Your task to perform on an android device: open chrome privacy settings Image 0: 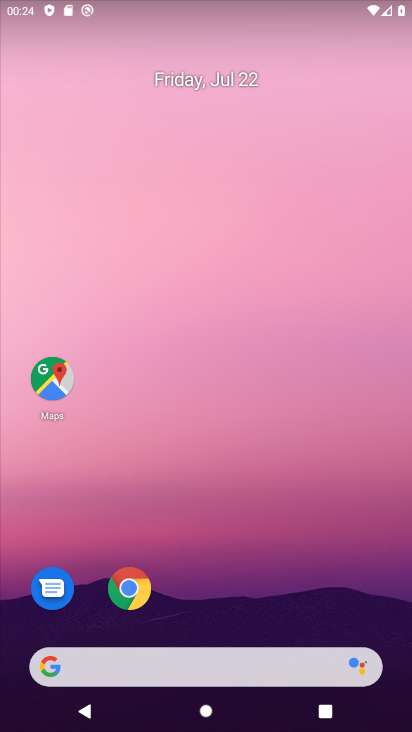
Step 0: drag from (215, 613) to (276, 43)
Your task to perform on an android device: open chrome privacy settings Image 1: 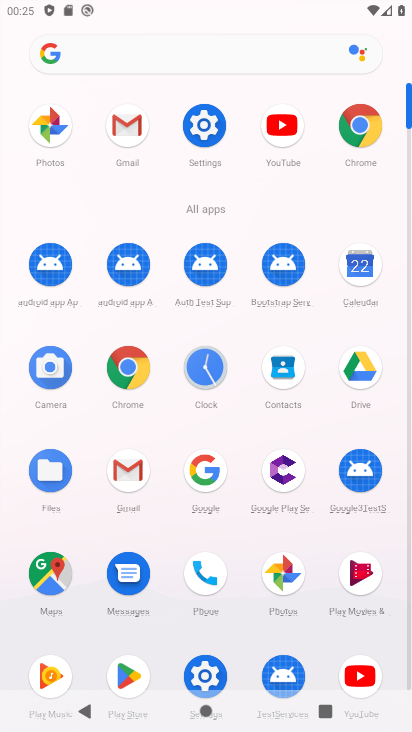
Step 1: click (364, 120)
Your task to perform on an android device: open chrome privacy settings Image 2: 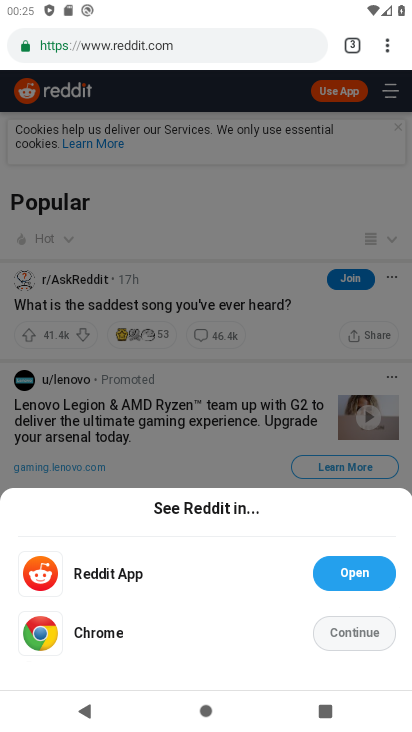
Step 2: drag from (390, 38) to (259, 554)
Your task to perform on an android device: open chrome privacy settings Image 3: 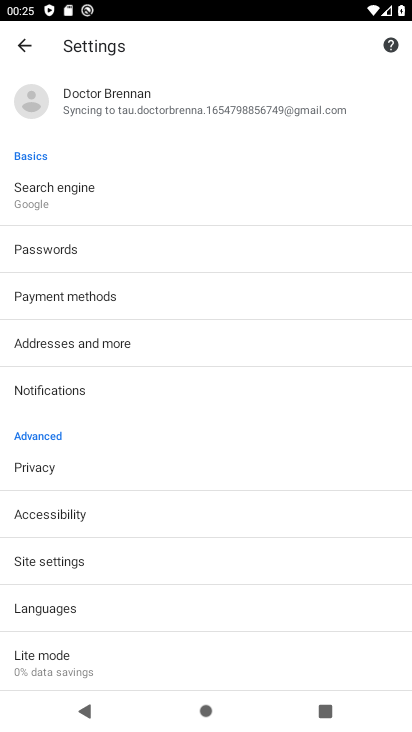
Step 3: click (50, 471)
Your task to perform on an android device: open chrome privacy settings Image 4: 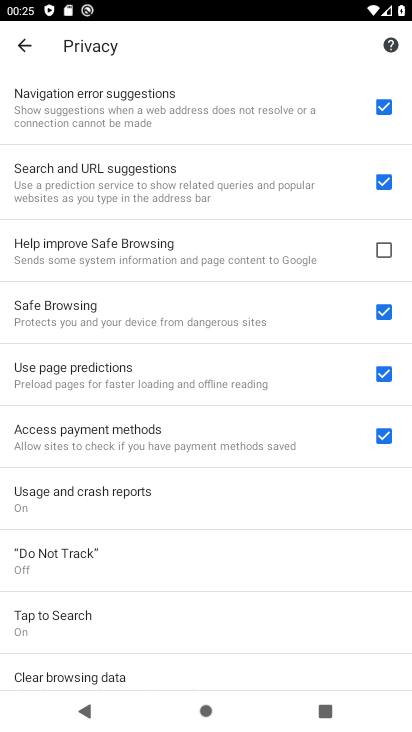
Step 4: task complete